Your task to perform on an android device: Do I have any events today? Image 0: 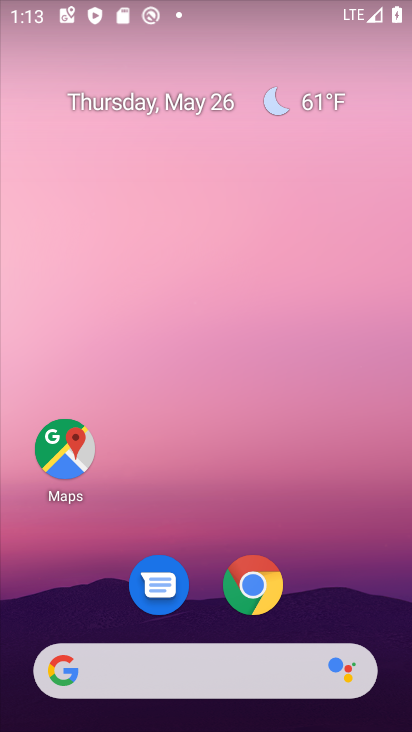
Step 0: drag from (330, 555) to (354, 49)
Your task to perform on an android device: Do I have any events today? Image 1: 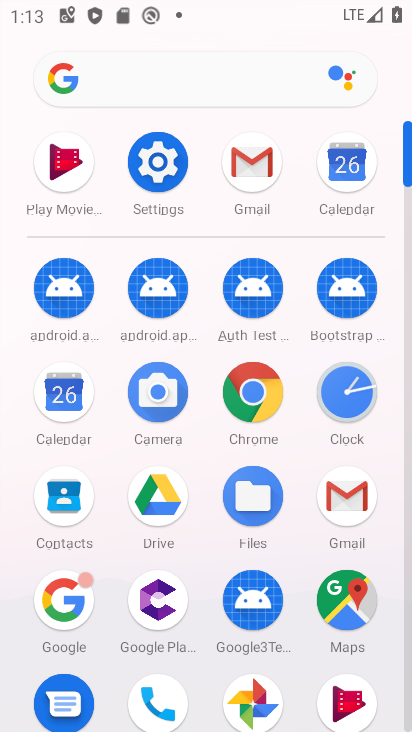
Step 1: click (338, 161)
Your task to perform on an android device: Do I have any events today? Image 2: 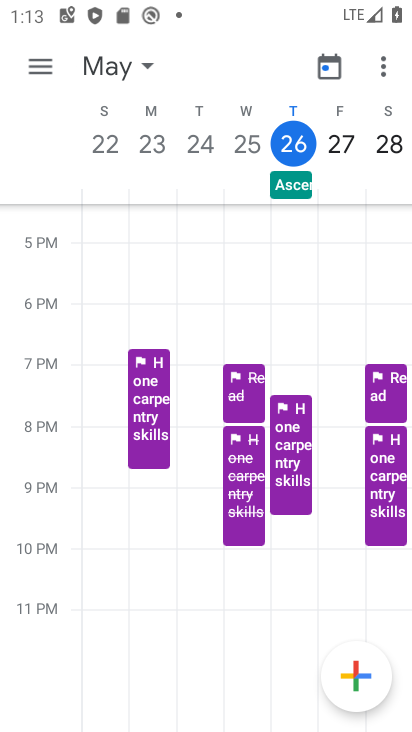
Step 2: click (295, 137)
Your task to perform on an android device: Do I have any events today? Image 3: 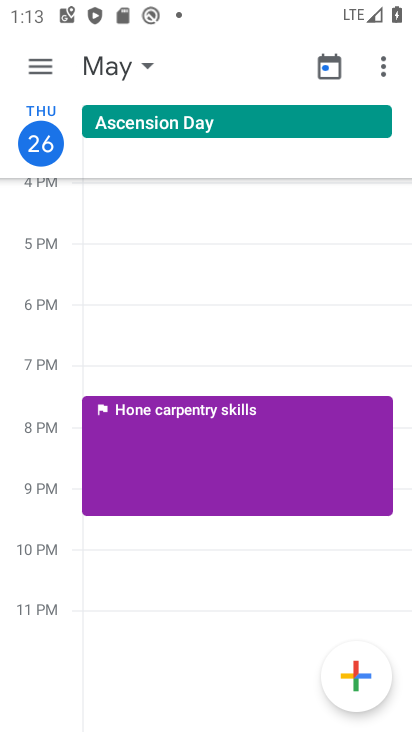
Step 3: click (50, 138)
Your task to perform on an android device: Do I have any events today? Image 4: 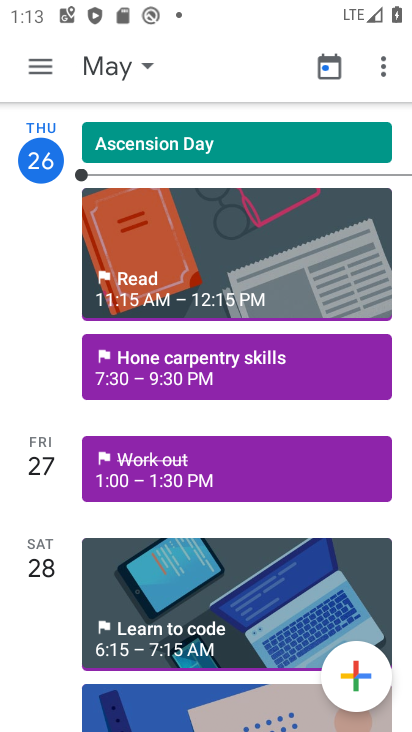
Step 4: task complete